Your task to perform on an android device: star an email in the gmail app Image 0: 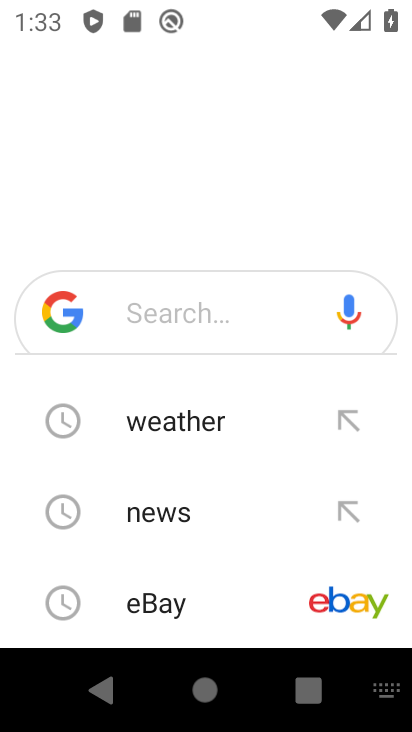
Step 0: press home button
Your task to perform on an android device: star an email in the gmail app Image 1: 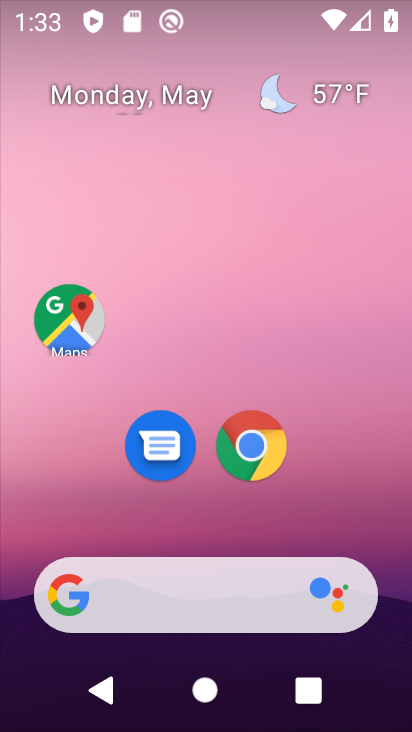
Step 1: drag from (212, 493) to (192, 70)
Your task to perform on an android device: star an email in the gmail app Image 2: 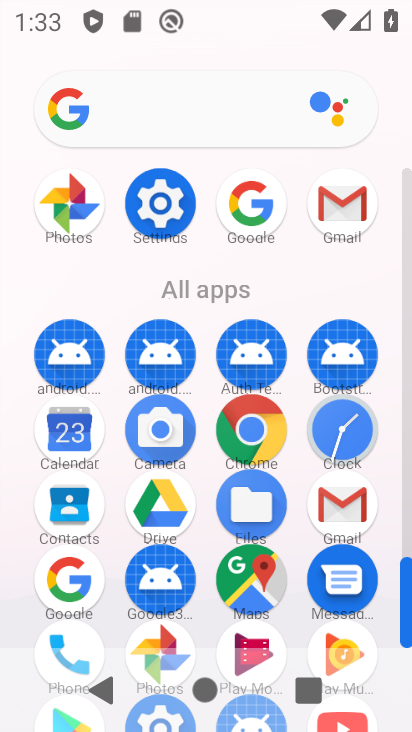
Step 2: click (345, 196)
Your task to perform on an android device: star an email in the gmail app Image 3: 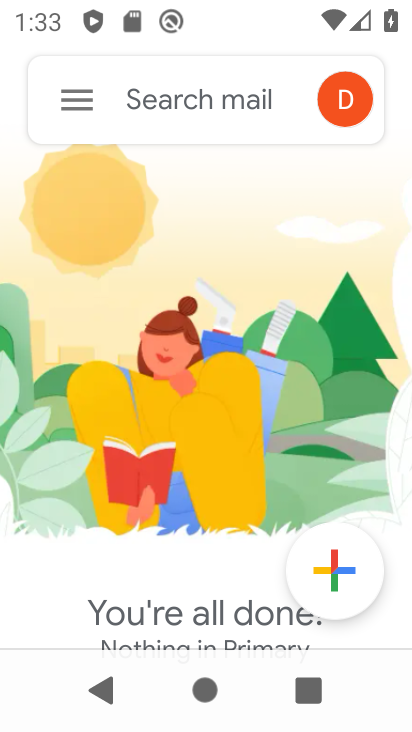
Step 3: click (68, 109)
Your task to perform on an android device: star an email in the gmail app Image 4: 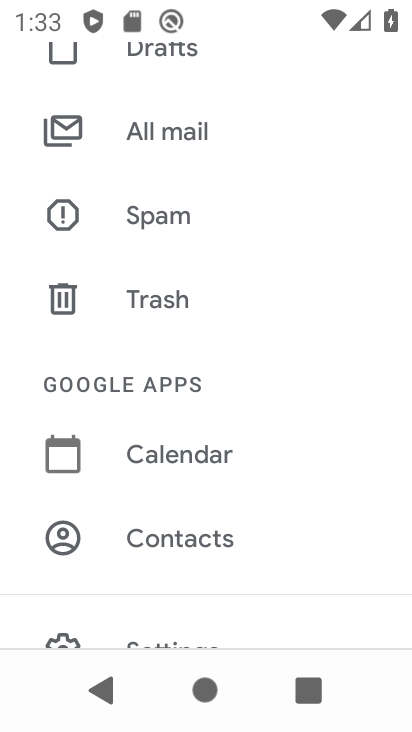
Step 4: click (144, 148)
Your task to perform on an android device: star an email in the gmail app Image 5: 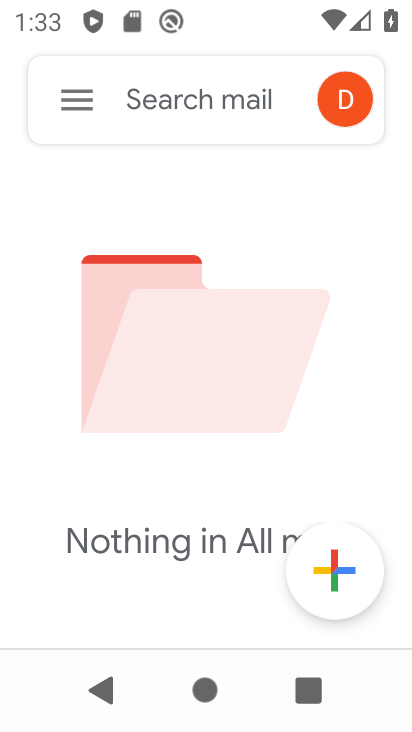
Step 5: task complete